Your task to perform on an android device: Open Amazon Image 0: 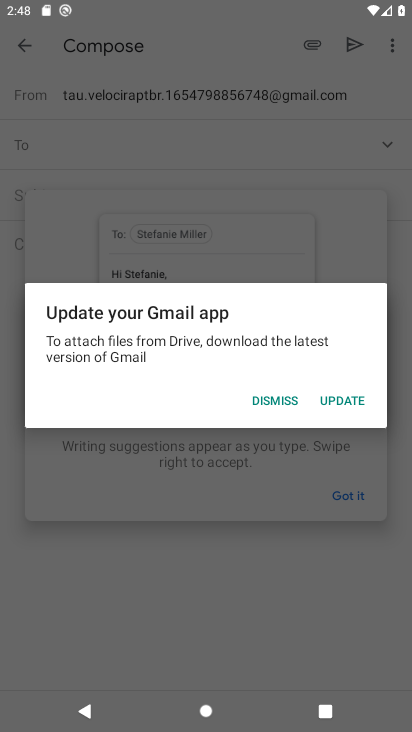
Step 0: press home button
Your task to perform on an android device: Open Amazon Image 1: 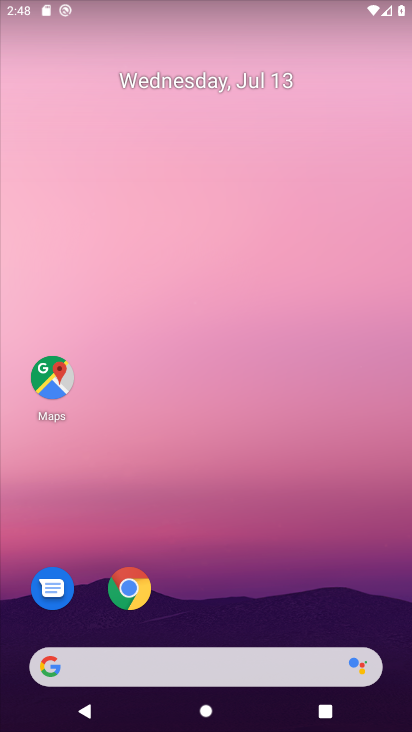
Step 1: drag from (213, 627) to (181, 17)
Your task to perform on an android device: Open Amazon Image 2: 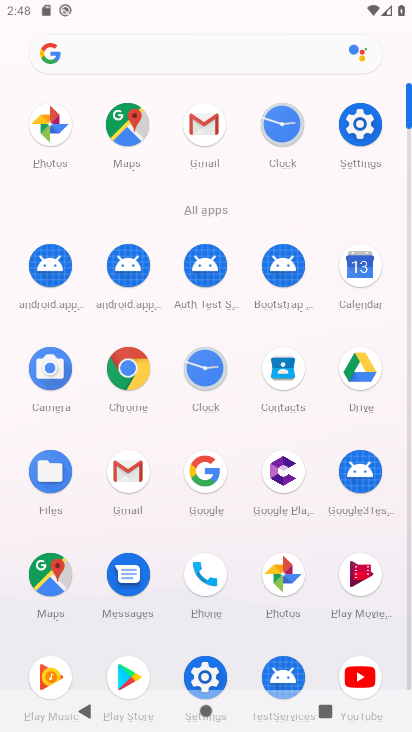
Step 2: click (111, 371)
Your task to perform on an android device: Open Amazon Image 3: 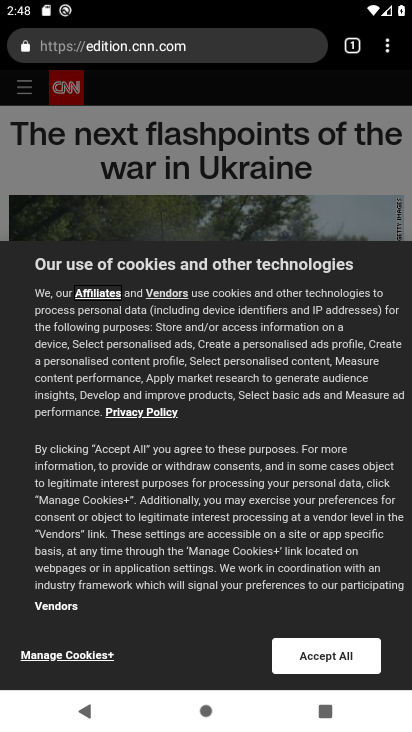
Step 3: click (359, 39)
Your task to perform on an android device: Open Amazon Image 4: 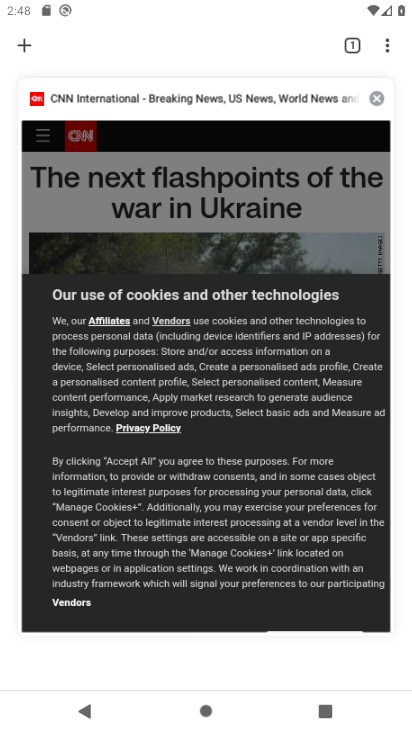
Step 4: click (22, 44)
Your task to perform on an android device: Open Amazon Image 5: 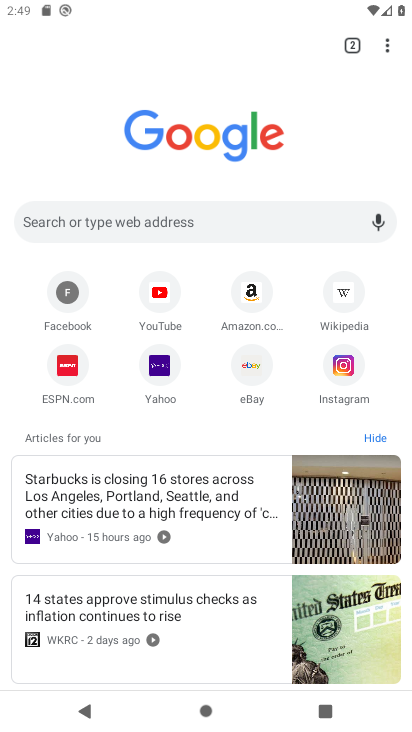
Step 5: click (247, 298)
Your task to perform on an android device: Open Amazon Image 6: 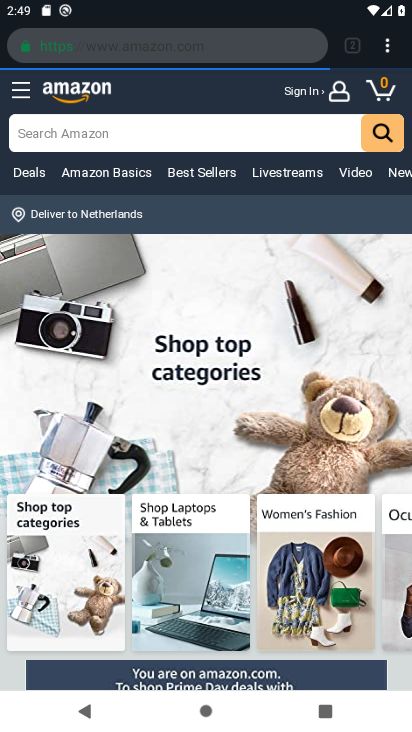
Step 6: task complete